Your task to perform on an android device: empty trash in google photos Image 0: 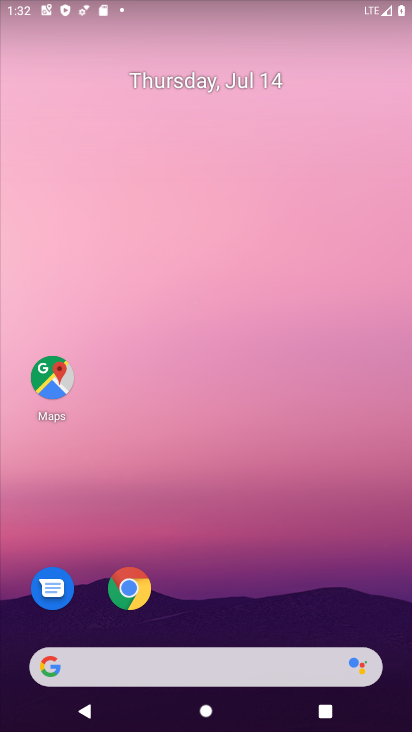
Step 0: drag from (253, 592) to (301, 18)
Your task to perform on an android device: empty trash in google photos Image 1: 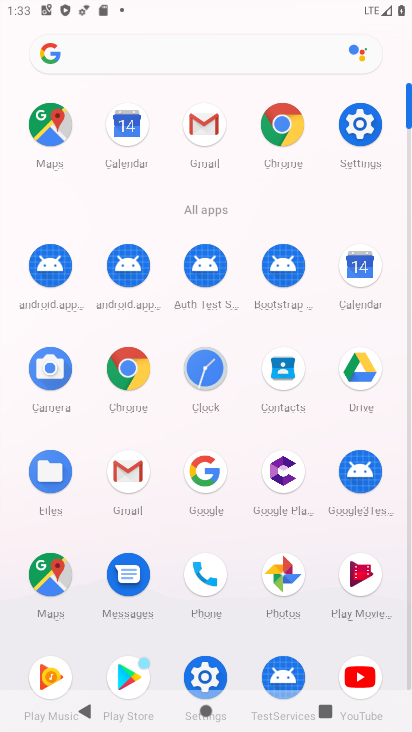
Step 1: click (277, 572)
Your task to perform on an android device: empty trash in google photos Image 2: 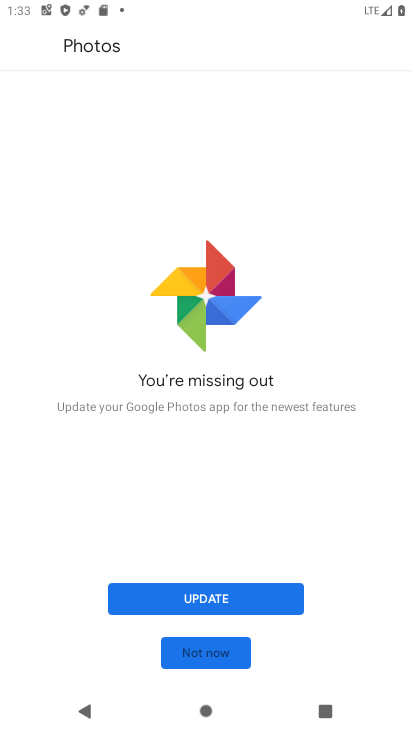
Step 2: click (268, 599)
Your task to perform on an android device: empty trash in google photos Image 3: 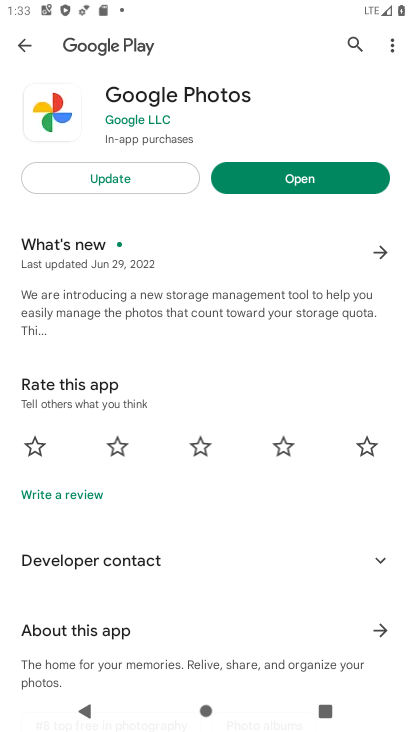
Step 3: click (91, 182)
Your task to perform on an android device: empty trash in google photos Image 4: 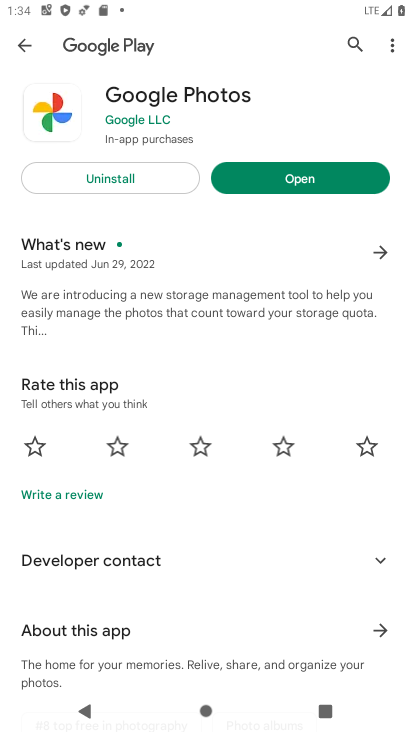
Step 4: click (302, 180)
Your task to perform on an android device: empty trash in google photos Image 5: 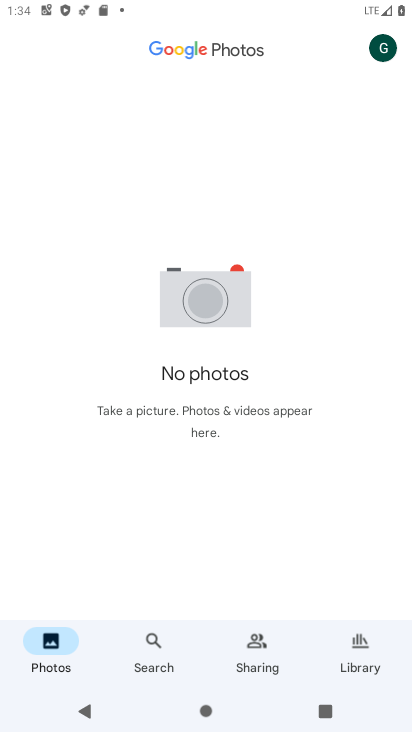
Step 5: click (356, 651)
Your task to perform on an android device: empty trash in google photos Image 6: 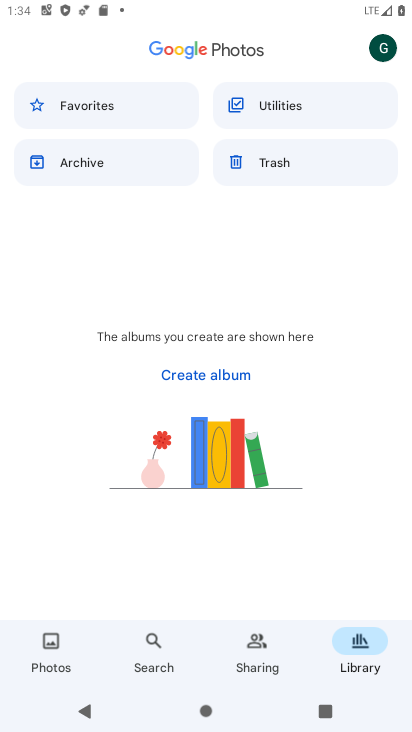
Step 6: click (300, 156)
Your task to perform on an android device: empty trash in google photos Image 7: 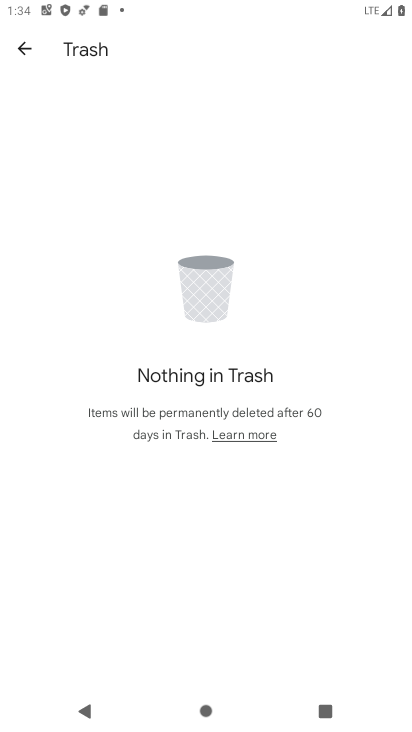
Step 7: task complete